Your task to perform on an android device: turn on wifi Image 0: 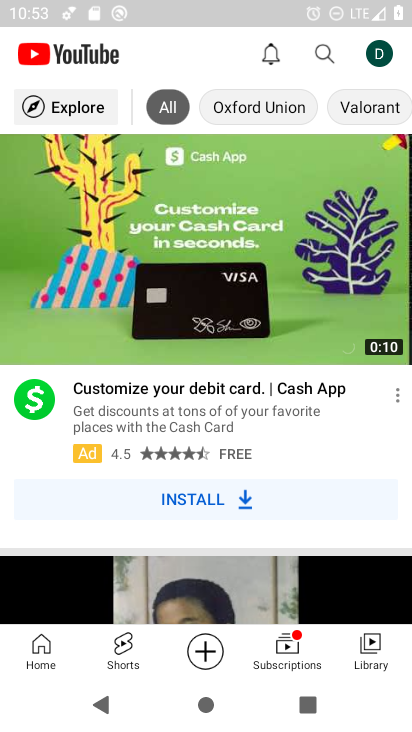
Step 0: press home button
Your task to perform on an android device: turn on wifi Image 1: 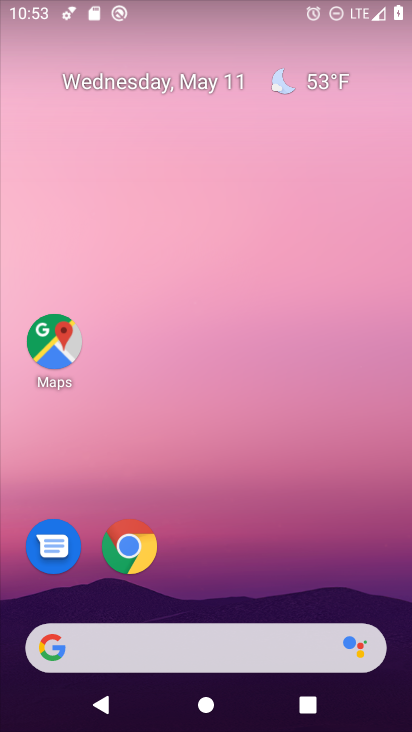
Step 1: drag from (175, 5) to (223, 420)
Your task to perform on an android device: turn on wifi Image 2: 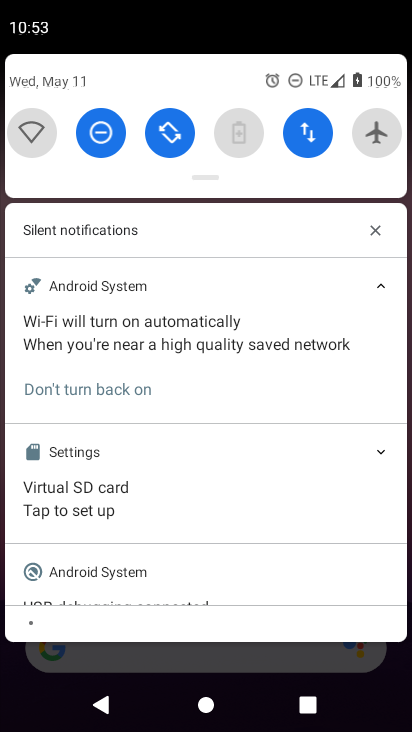
Step 2: click (26, 146)
Your task to perform on an android device: turn on wifi Image 3: 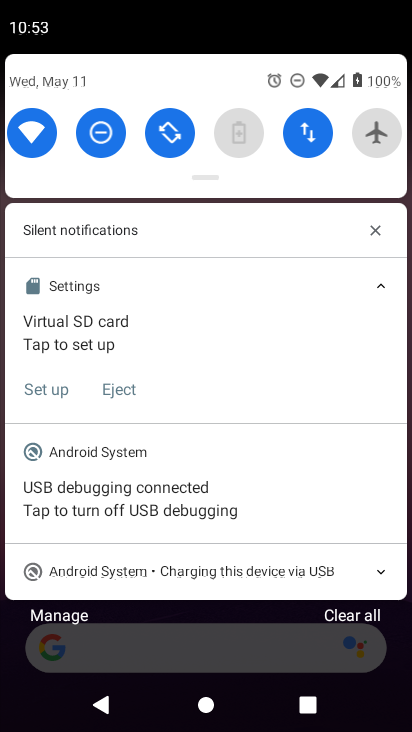
Step 3: task complete